Your task to perform on an android device: Go to Amazon Image 0: 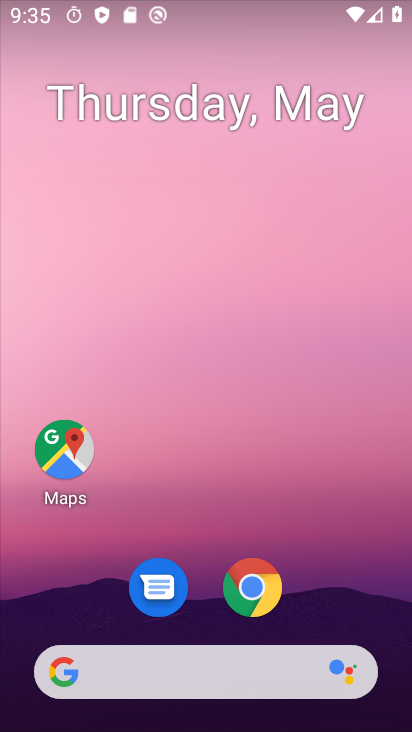
Step 0: click (255, 592)
Your task to perform on an android device: Go to Amazon Image 1: 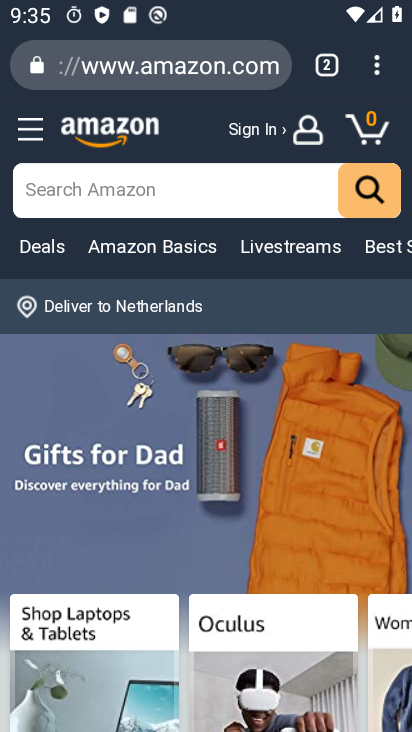
Step 1: task complete